Your task to perform on an android device: Add razer blackwidow to the cart on target, then select checkout. Image 0: 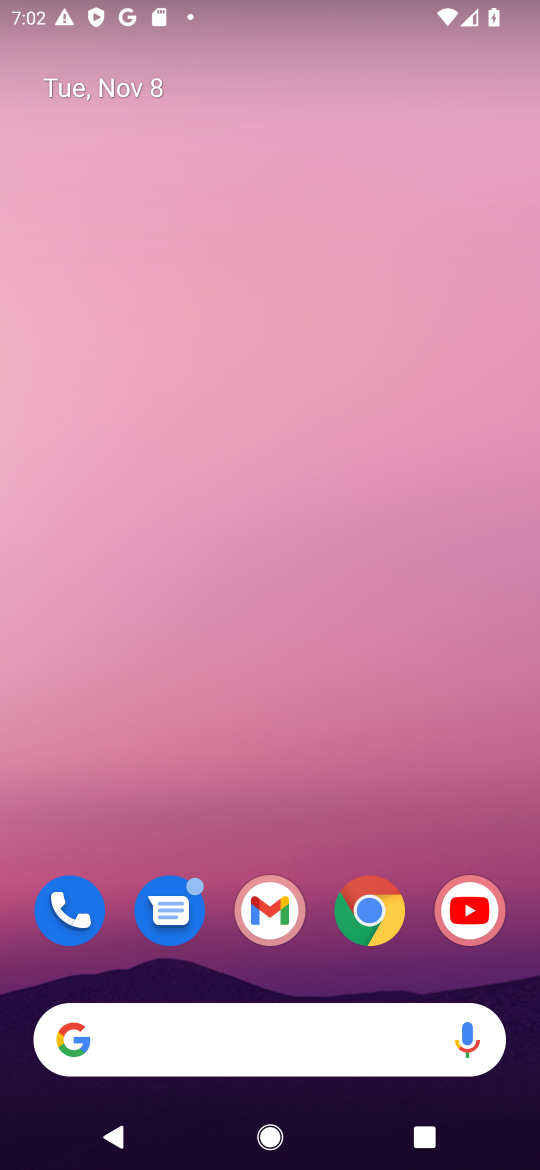
Step 0: click (357, 906)
Your task to perform on an android device: Add razer blackwidow to the cart on target, then select checkout. Image 1: 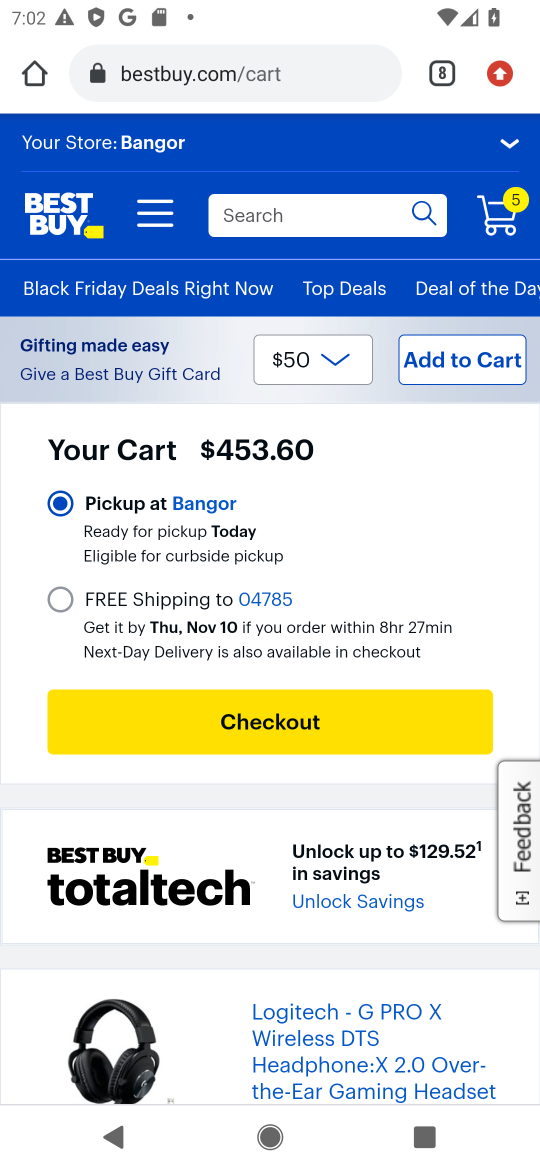
Step 1: click (443, 73)
Your task to perform on an android device: Add razer blackwidow to the cart on target, then select checkout. Image 2: 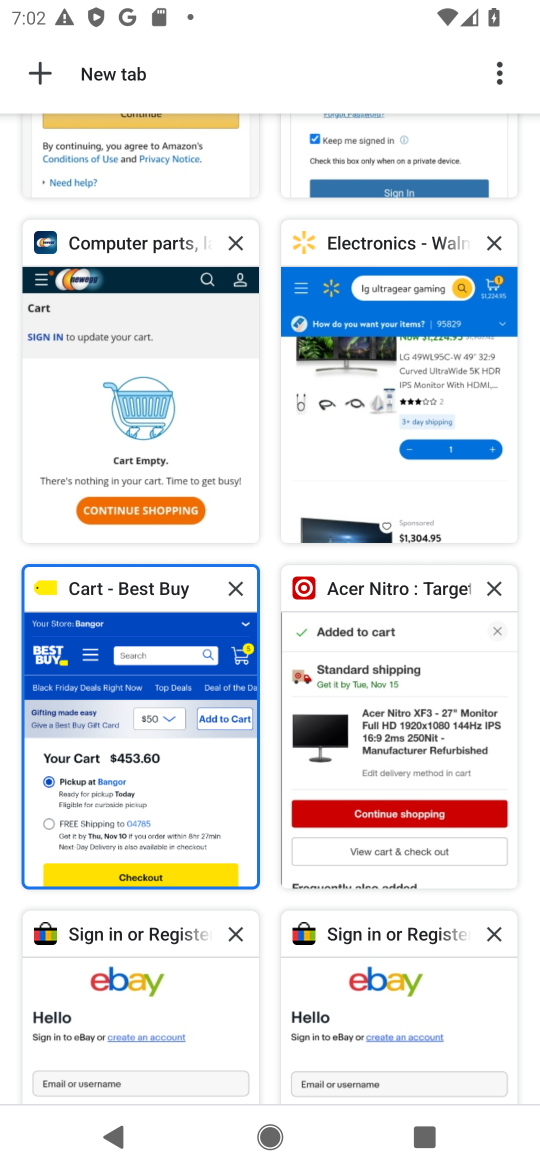
Step 2: click (265, 366)
Your task to perform on an android device: Add razer blackwidow to the cart on target, then select checkout. Image 3: 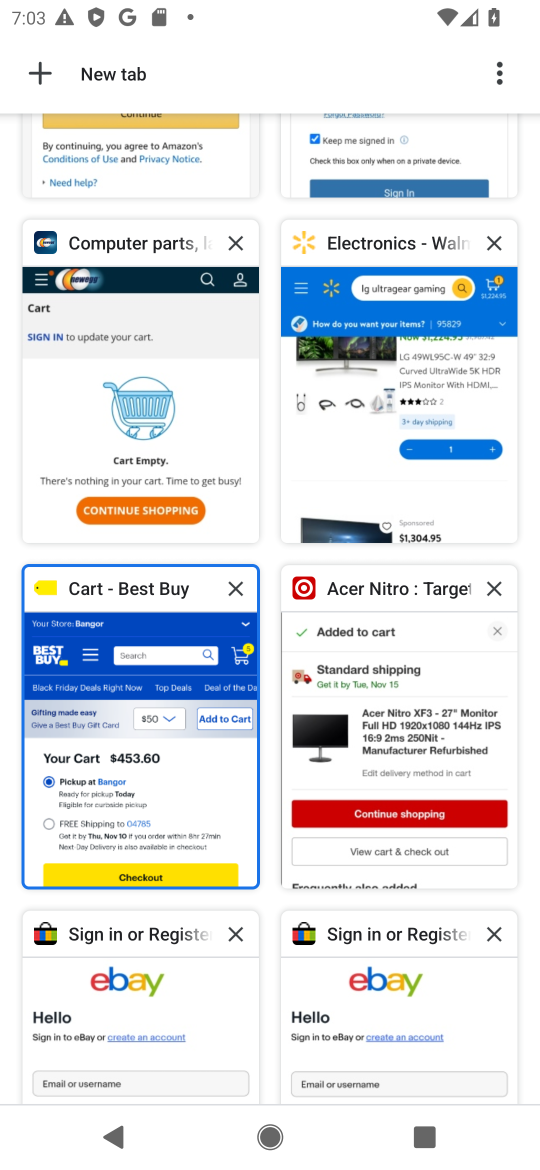
Step 3: click (343, 710)
Your task to perform on an android device: Add razer blackwidow to the cart on target, then select checkout. Image 4: 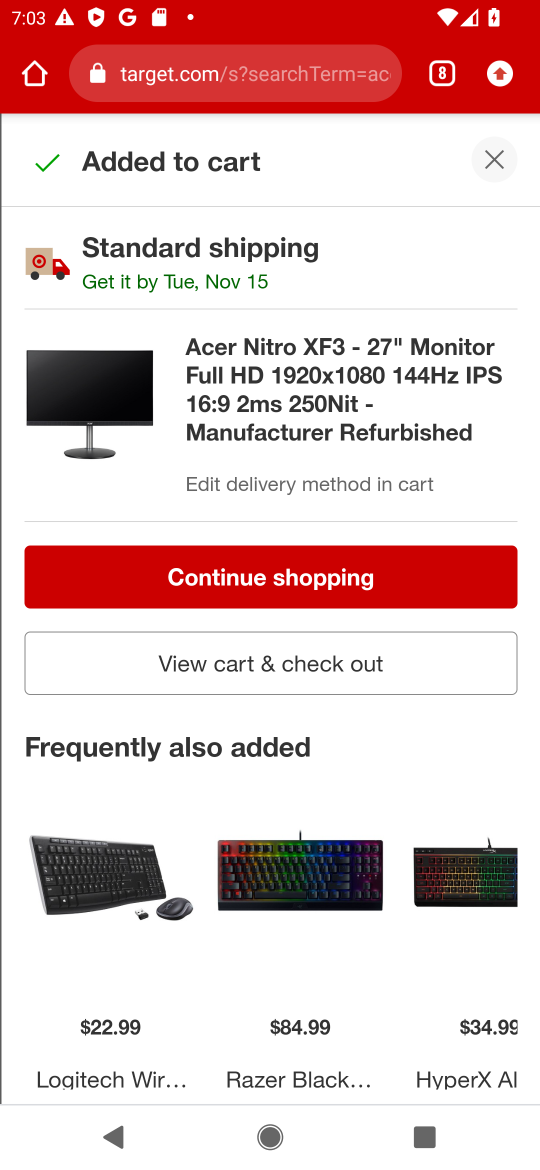
Step 4: click (496, 160)
Your task to perform on an android device: Add razer blackwidow to the cart on target, then select checkout. Image 5: 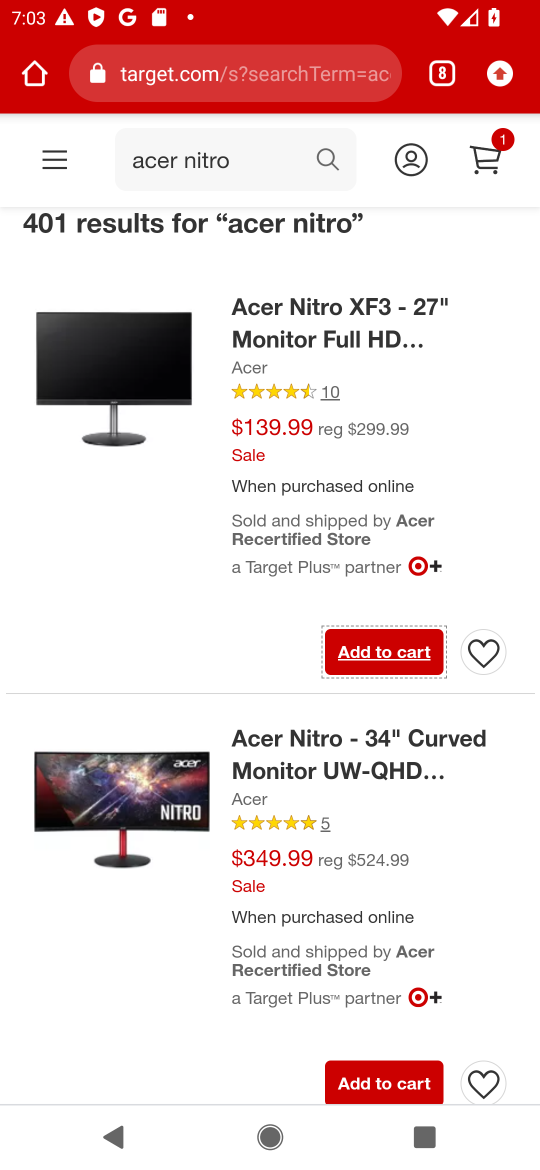
Step 5: click (213, 173)
Your task to perform on an android device: Add razer blackwidow to the cart on target, then select checkout. Image 6: 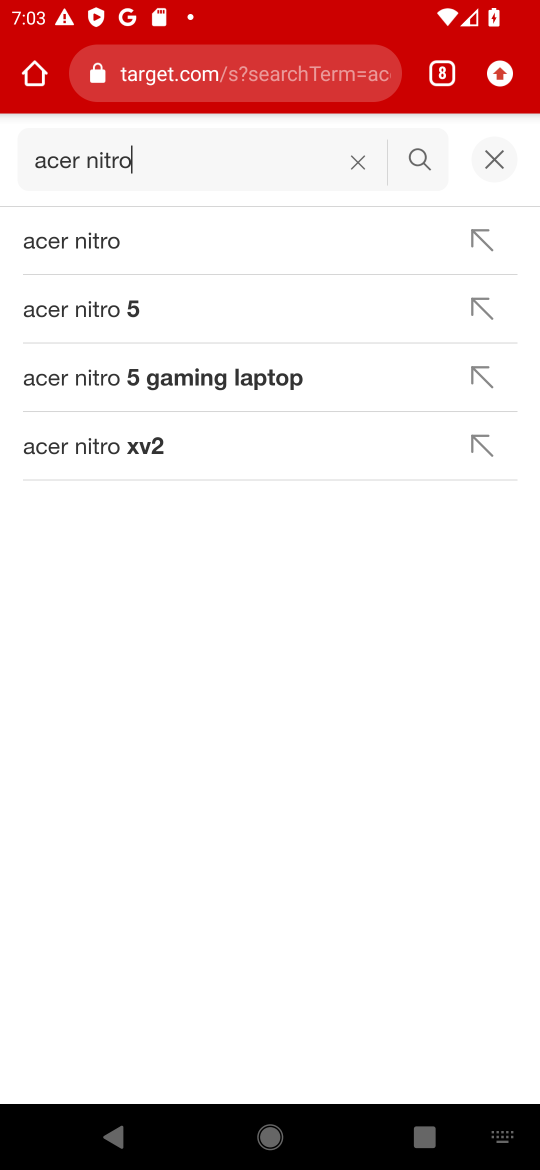
Step 6: click (354, 159)
Your task to perform on an android device: Add razer blackwidow to the cart on target, then select checkout. Image 7: 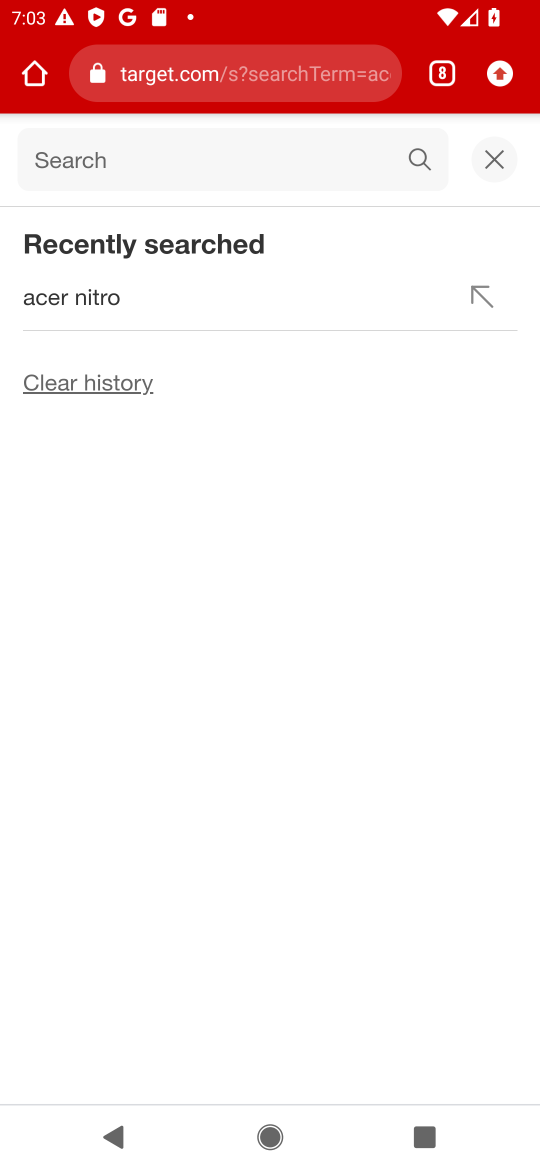
Step 7: click (100, 167)
Your task to perform on an android device: Add razer blackwidow to the cart on target, then select checkout. Image 8: 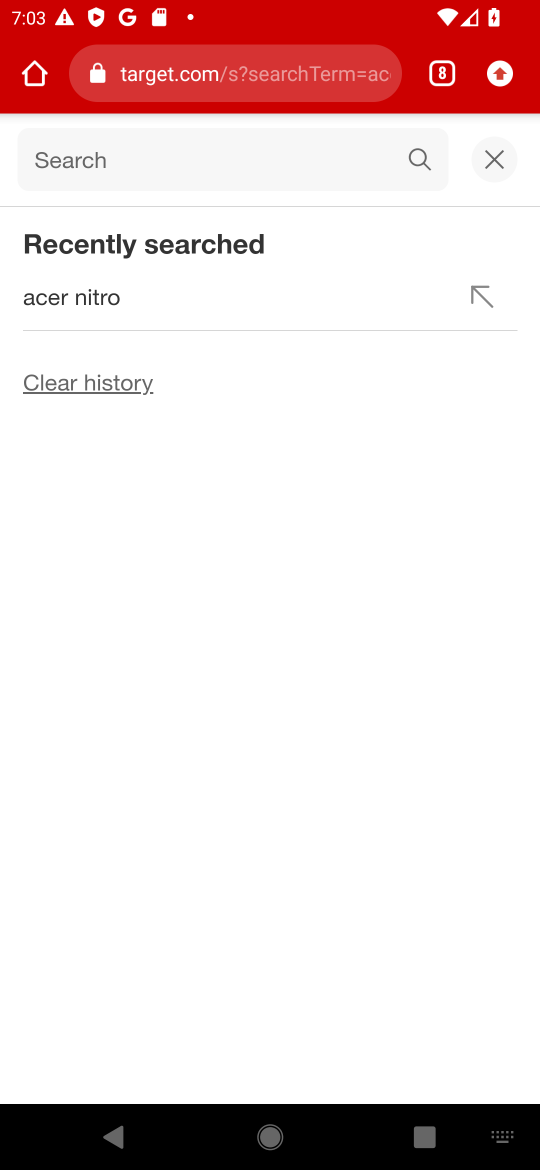
Step 8: type "razer blackwidow"
Your task to perform on an android device: Add razer blackwidow to the cart on target, then select checkout. Image 9: 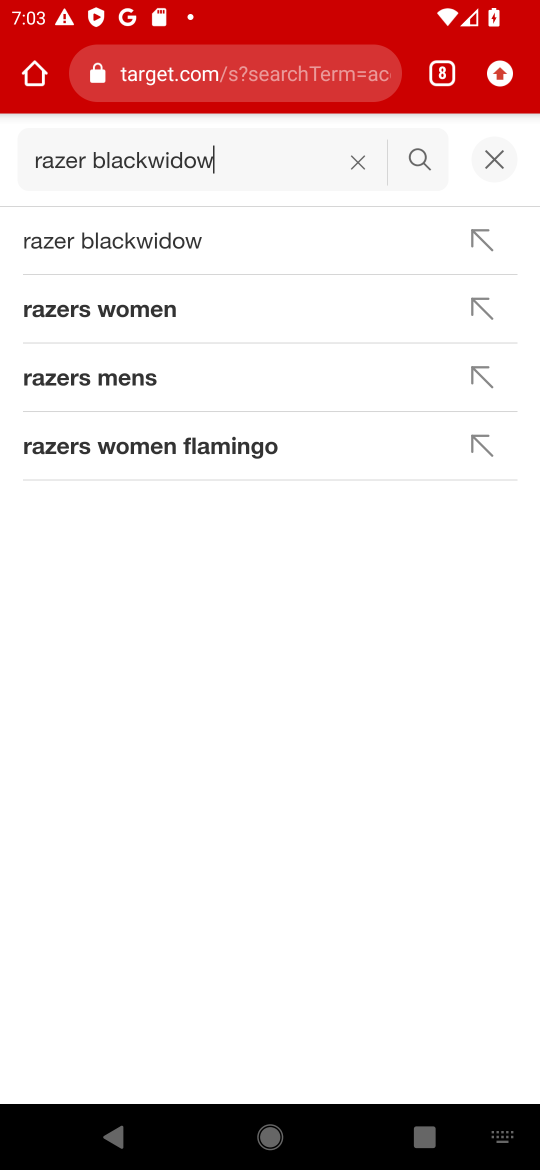
Step 9: click (170, 243)
Your task to perform on an android device: Add razer blackwidow to the cart on target, then select checkout. Image 10: 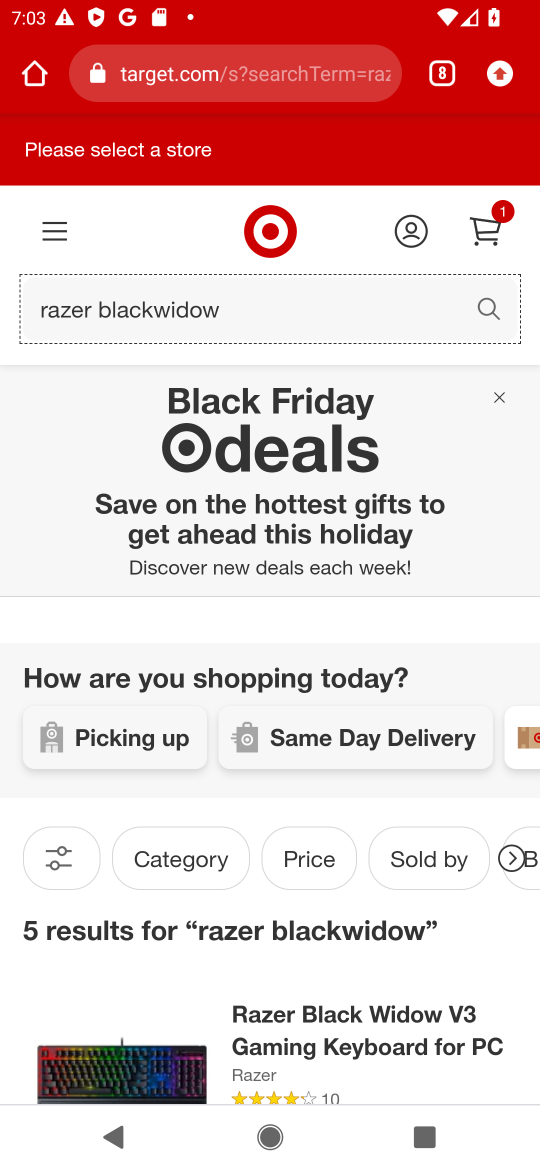
Step 10: drag from (379, 1046) to (533, 342)
Your task to perform on an android device: Add razer blackwidow to the cart on target, then select checkout. Image 11: 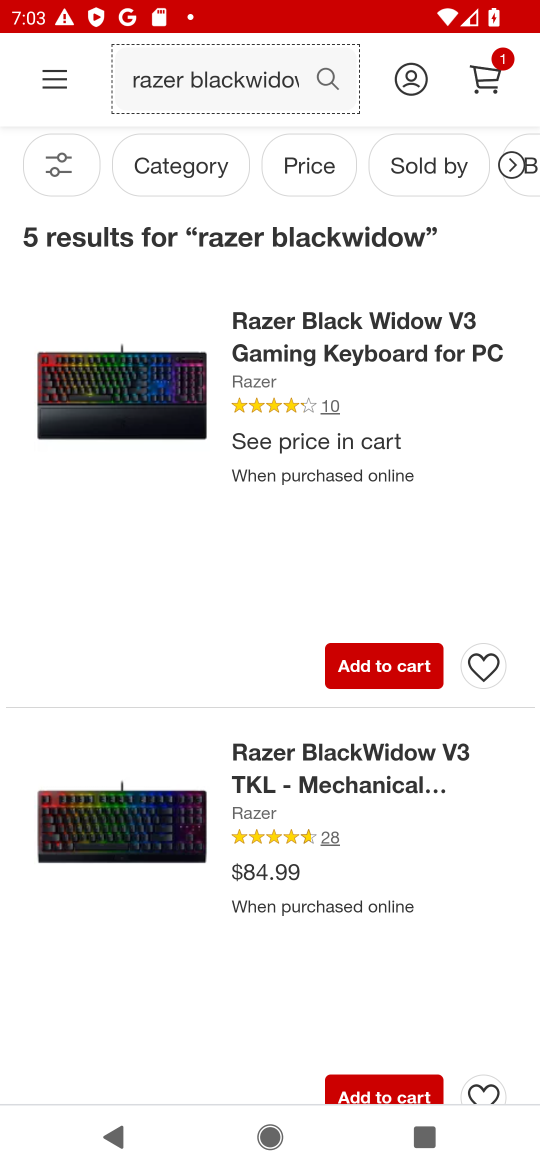
Step 11: click (389, 779)
Your task to perform on an android device: Add razer blackwidow to the cart on target, then select checkout. Image 12: 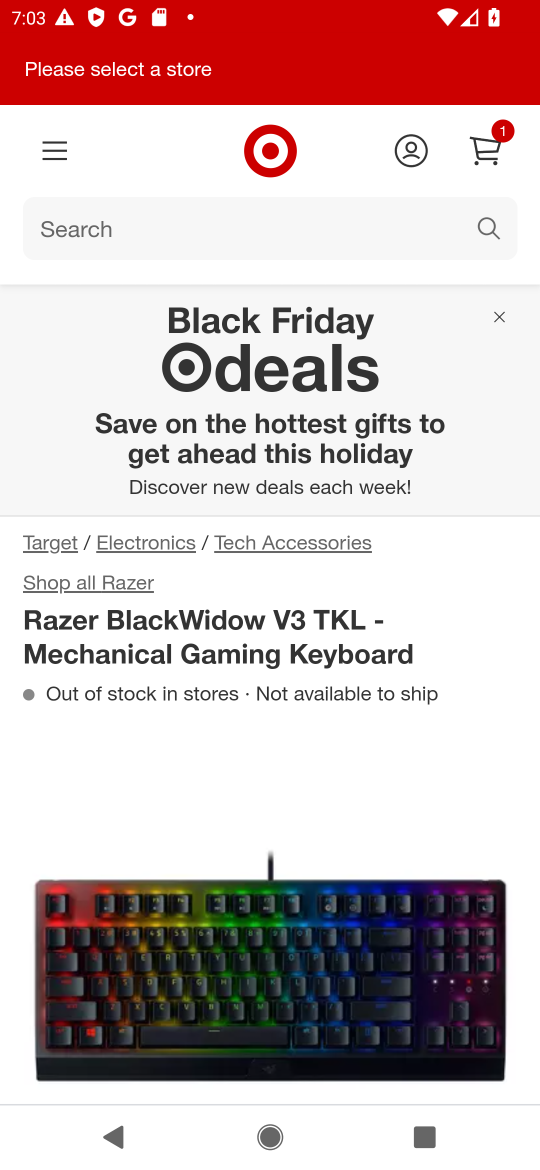
Step 12: drag from (364, 742) to (369, 87)
Your task to perform on an android device: Add razer blackwidow to the cart on target, then select checkout. Image 13: 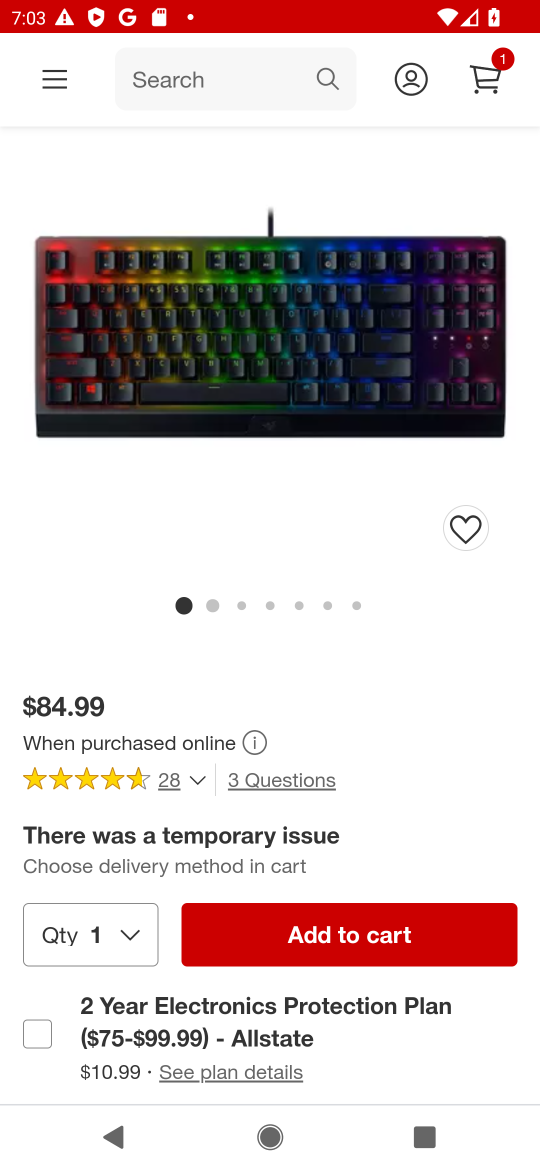
Step 13: click (298, 928)
Your task to perform on an android device: Add razer blackwidow to the cart on target, then select checkout. Image 14: 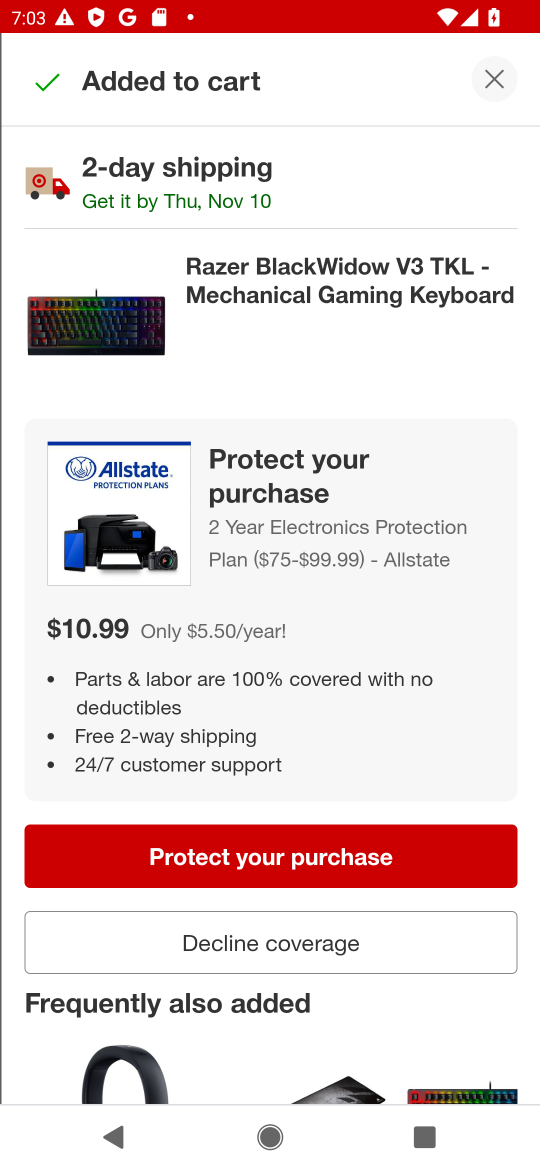
Step 14: click (275, 939)
Your task to perform on an android device: Add razer blackwidow to the cart on target, then select checkout. Image 15: 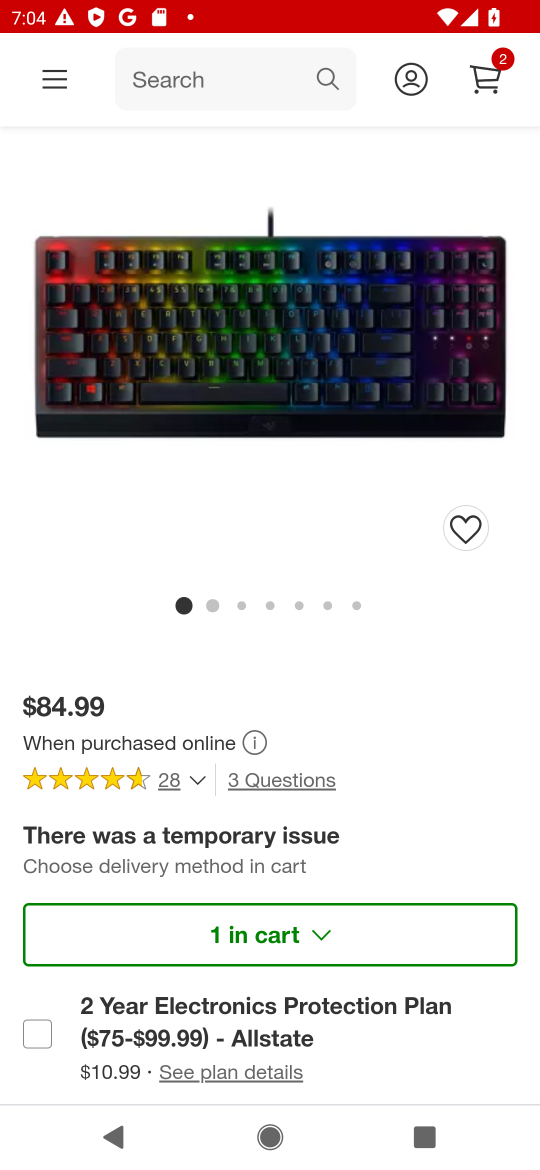
Step 15: click (491, 72)
Your task to perform on an android device: Add razer blackwidow to the cart on target, then select checkout. Image 16: 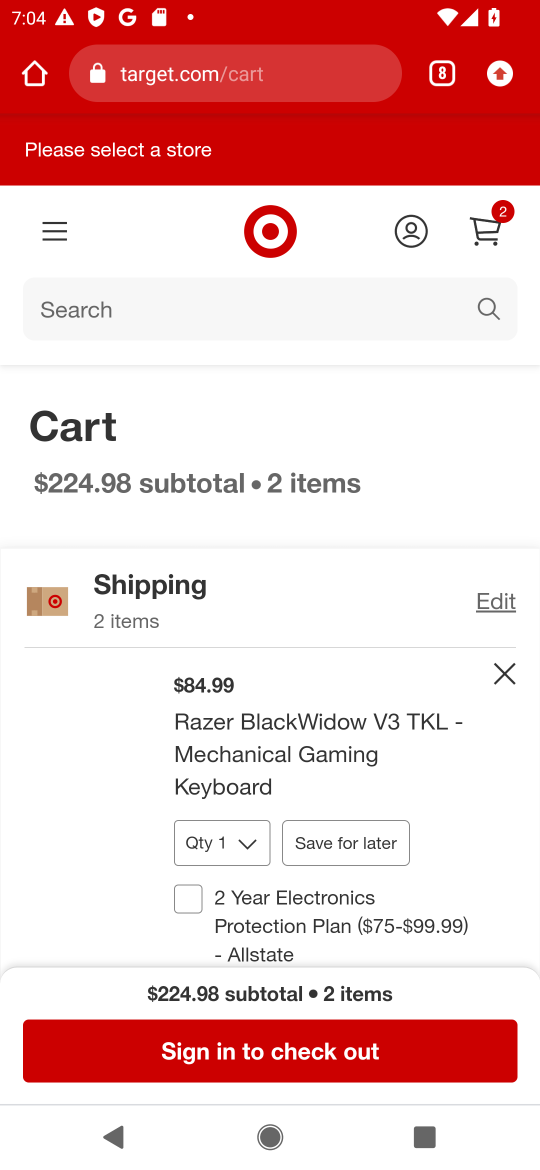
Step 16: click (238, 1048)
Your task to perform on an android device: Add razer blackwidow to the cart on target, then select checkout. Image 17: 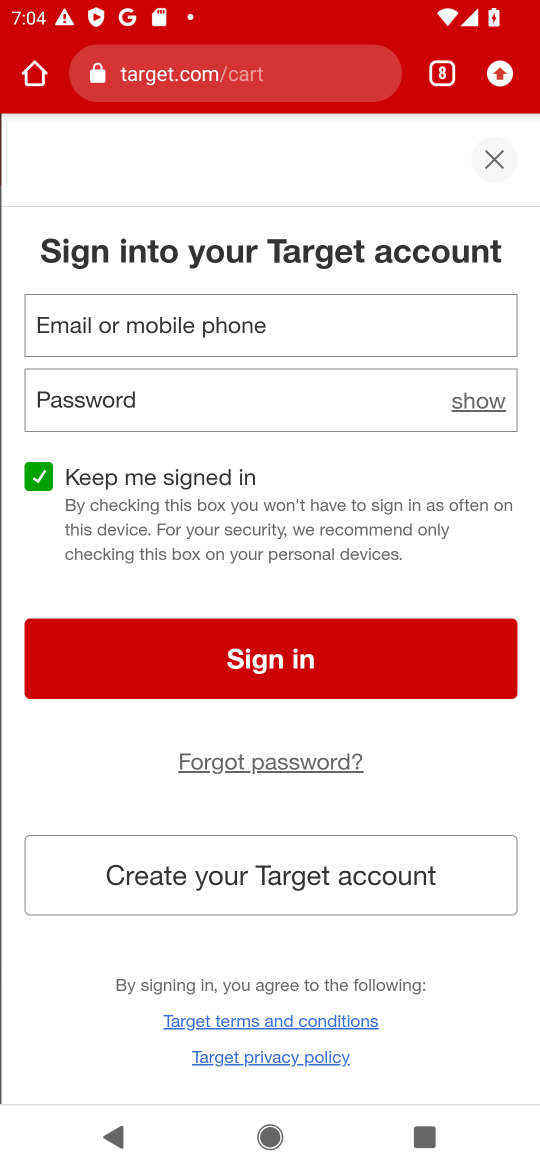
Step 17: task complete